Your task to perform on an android device: turn on data saver in the chrome app Image 0: 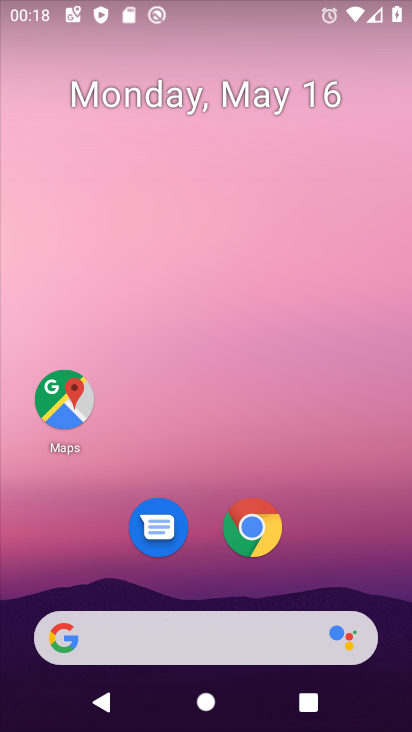
Step 0: click (280, 536)
Your task to perform on an android device: turn on data saver in the chrome app Image 1: 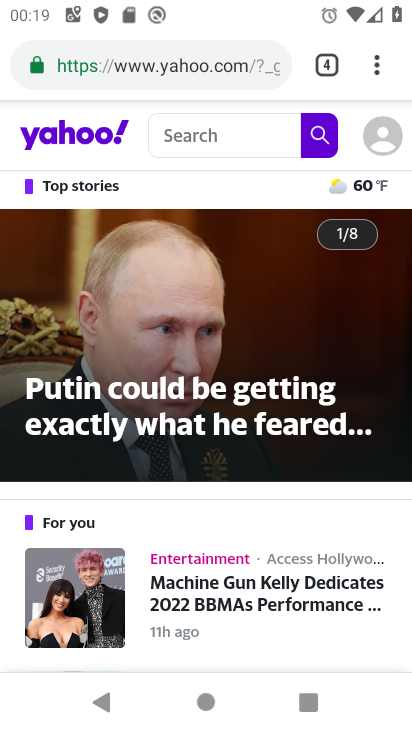
Step 1: click (368, 62)
Your task to perform on an android device: turn on data saver in the chrome app Image 2: 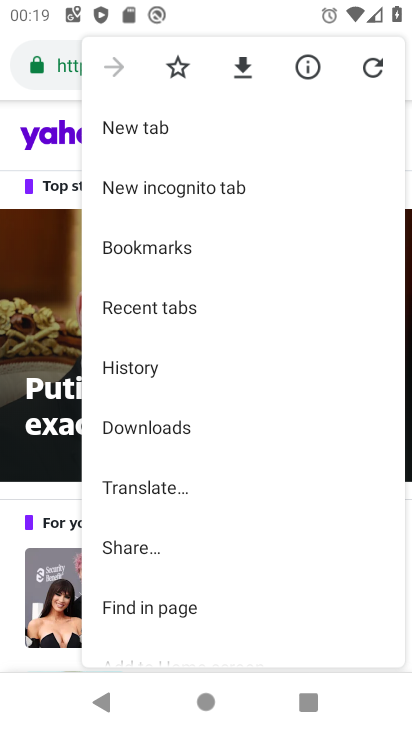
Step 2: drag from (198, 507) to (241, 333)
Your task to perform on an android device: turn on data saver in the chrome app Image 3: 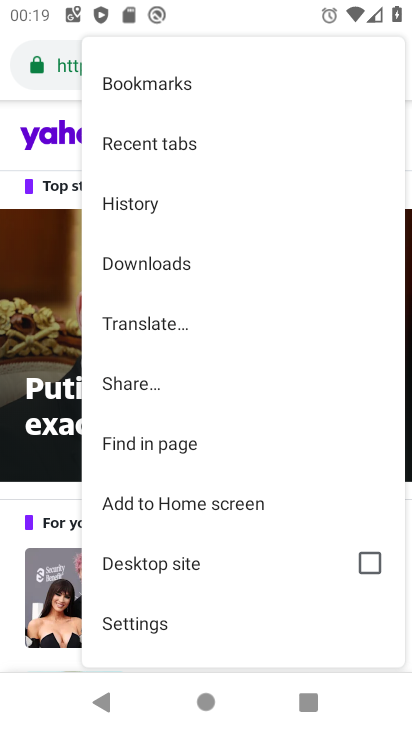
Step 3: click (194, 621)
Your task to perform on an android device: turn on data saver in the chrome app Image 4: 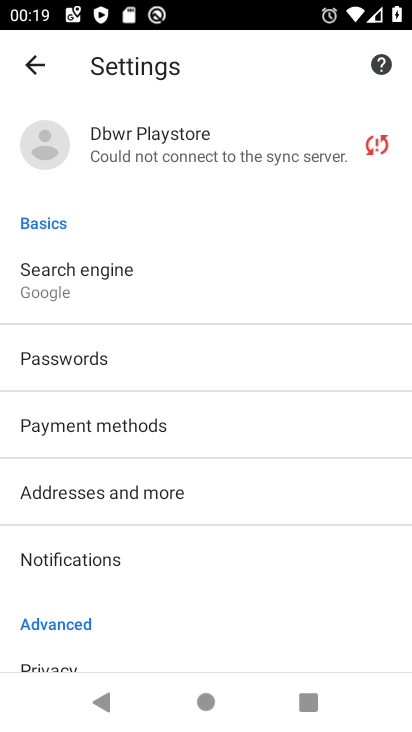
Step 4: drag from (194, 559) to (219, 309)
Your task to perform on an android device: turn on data saver in the chrome app Image 5: 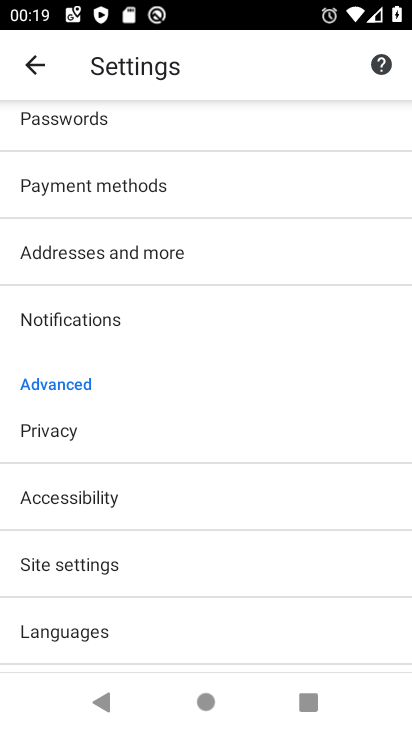
Step 5: drag from (186, 563) to (204, 404)
Your task to perform on an android device: turn on data saver in the chrome app Image 6: 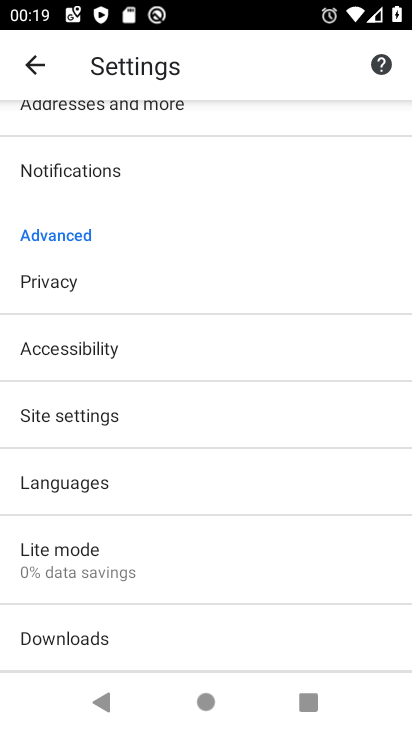
Step 6: click (180, 546)
Your task to perform on an android device: turn on data saver in the chrome app Image 7: 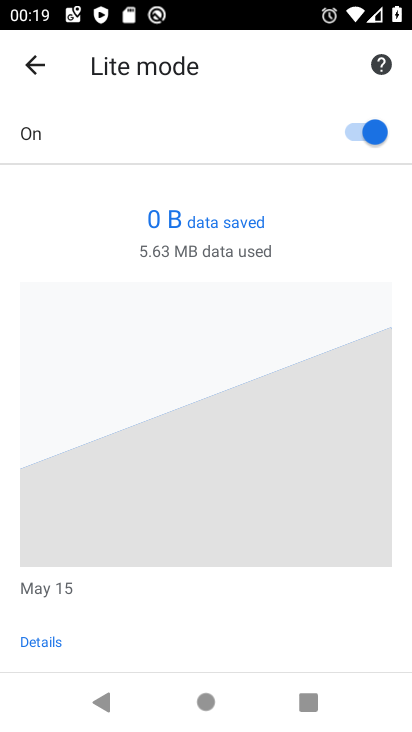
Step 7: click (361, 141)
Your task to perform on an android device: turn on data saver in the chrome app Image 8: 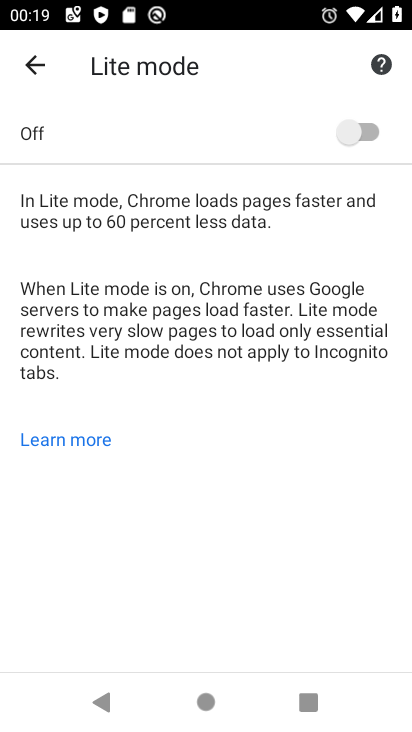
Step 8: task complete